Your task to perform on an android device: toggle data saver in the chrome app Image 0: 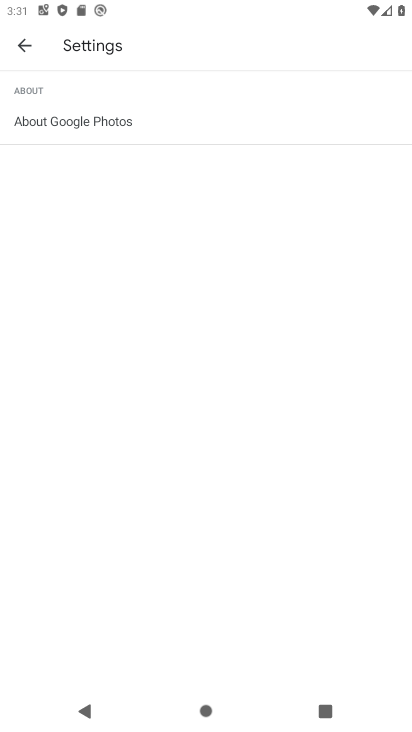
Step 0: press home button
Your task to perform on an android device: toggle data saver in the chrome app Image 1: 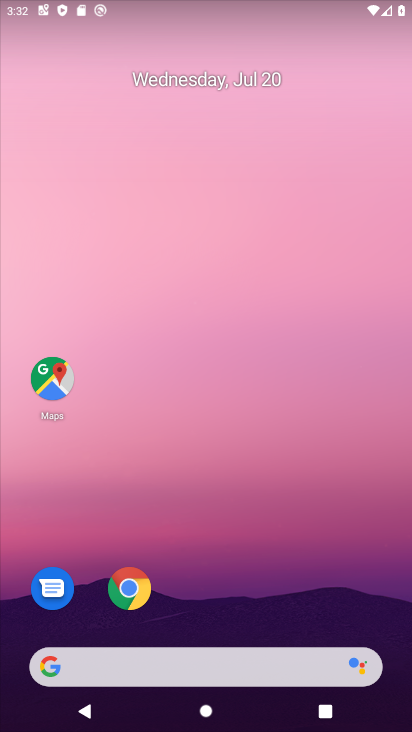
Step 1: drag from (337, 516) to (251, 185)
Your task to perform on an android device: toggle data saver in the chrome app Image 2: 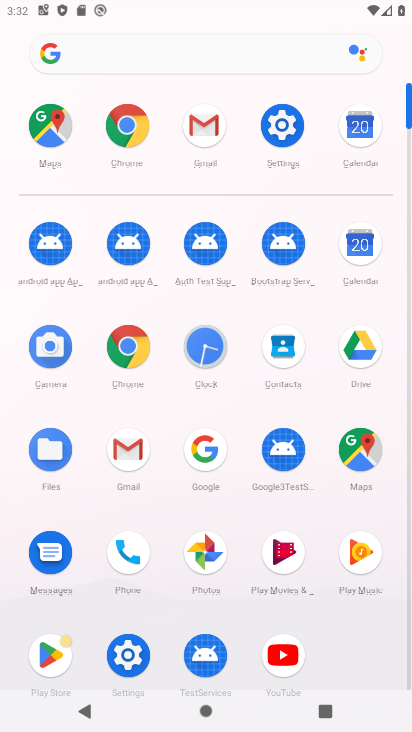
Step 2: click (128, 118)
Your task to perform on an android device: toggle data saver in the chrome app Image 3: 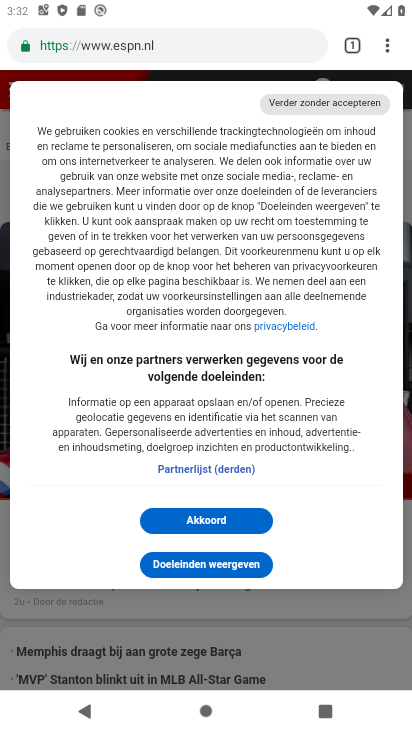
Step 3: task complete